Your task to perform on an android device: add a contact Image 0: 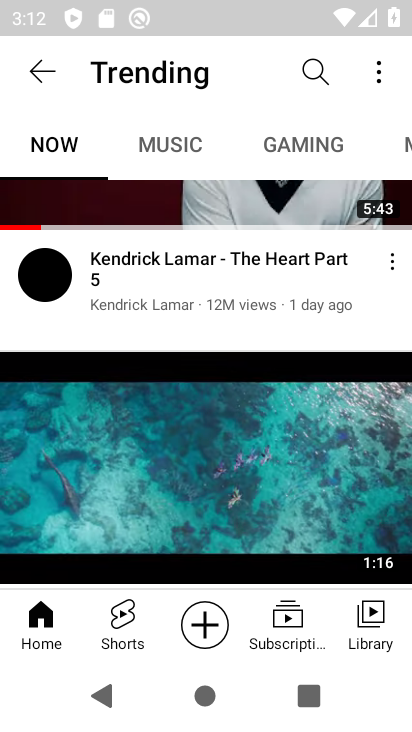
Step 0: press home button
Your task to perform on an android device: add a contact Image 1: 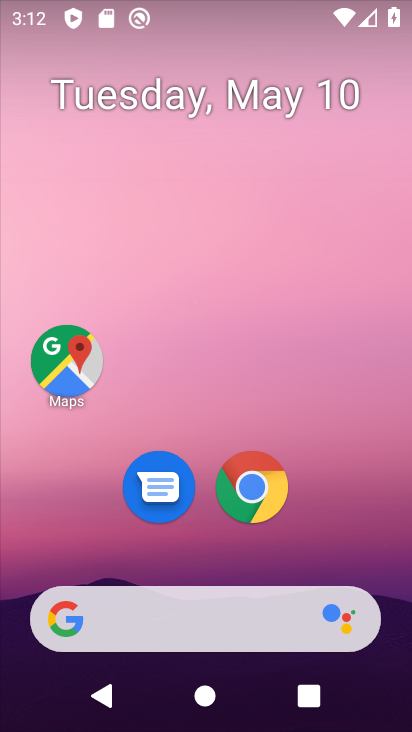
Step 1: drag from (211, 553) to (264, 30)
Your task to perform on an android device: add a contact Image 2: 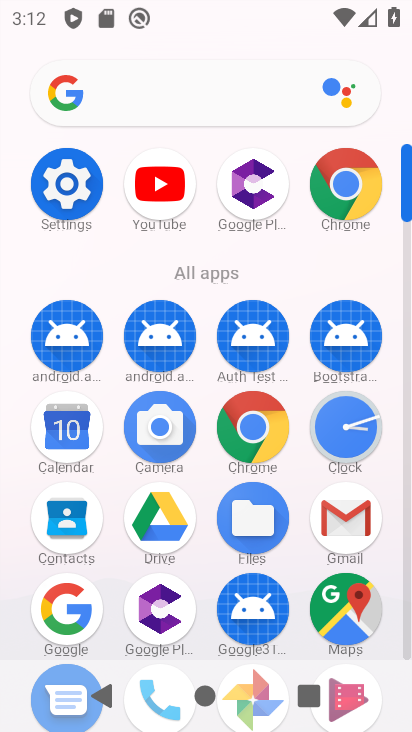
Step 2: click (64, 524)
Your task to perform on an android device: add a contact Image 3: 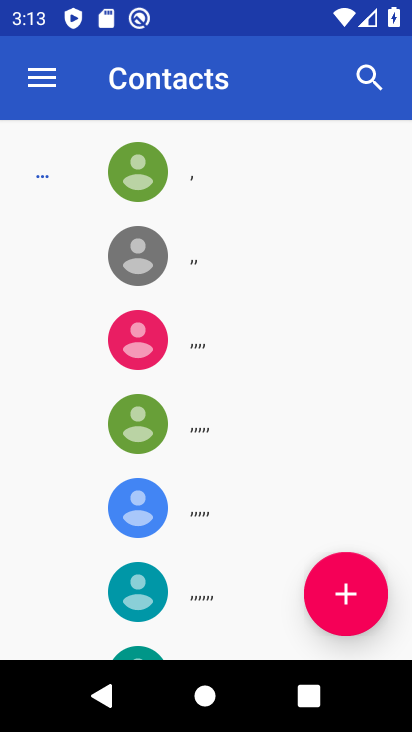
Step 3: click (350, 608)
Your task to perform on an android device: add a contact Image 4: 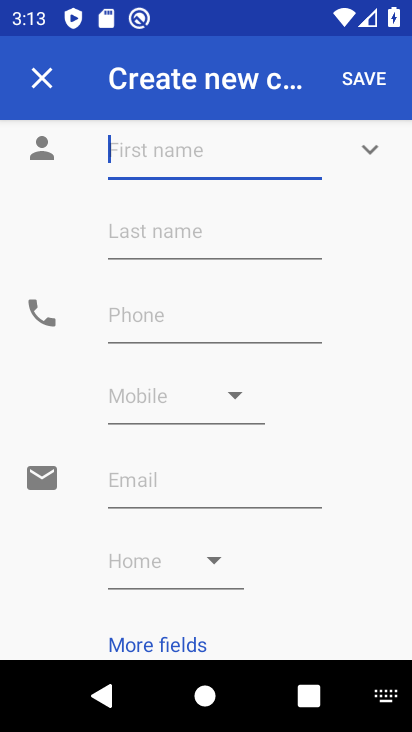
Step 4: type "fdtfcyhg"
Your task to perform on an android device: add a contact Image 5: 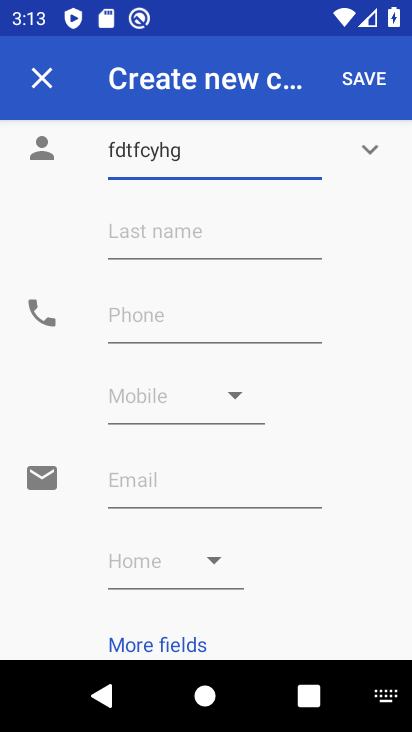
Step 5: click (373, 80)
Your task to perform on an android device: add a contact Image 6: 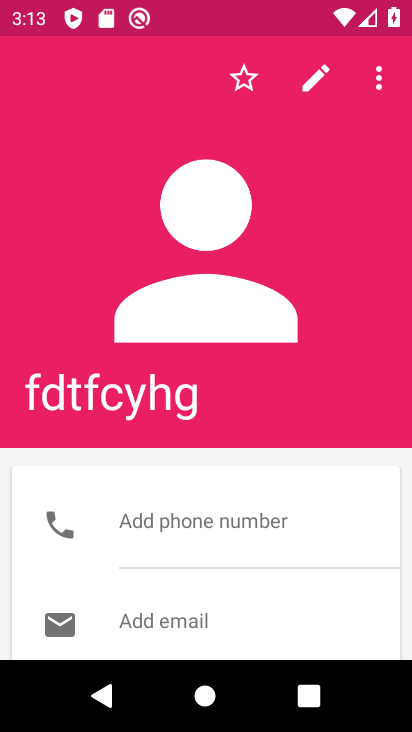
Step 6: task complete